Your task to perform on an android device: change text size in settings app Image 0: 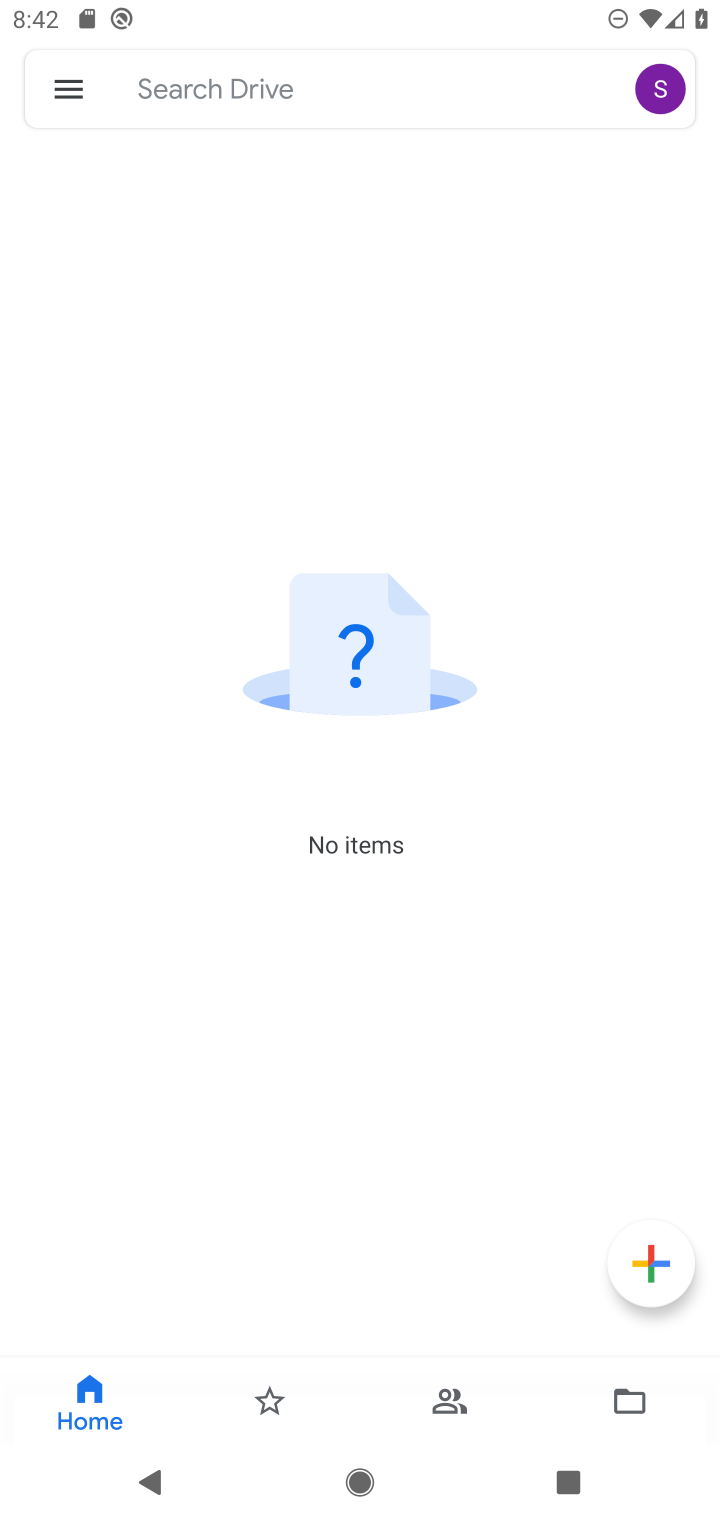
Step 0: press home button
Your task to perform on an android device: change text size in settings app Image 1: 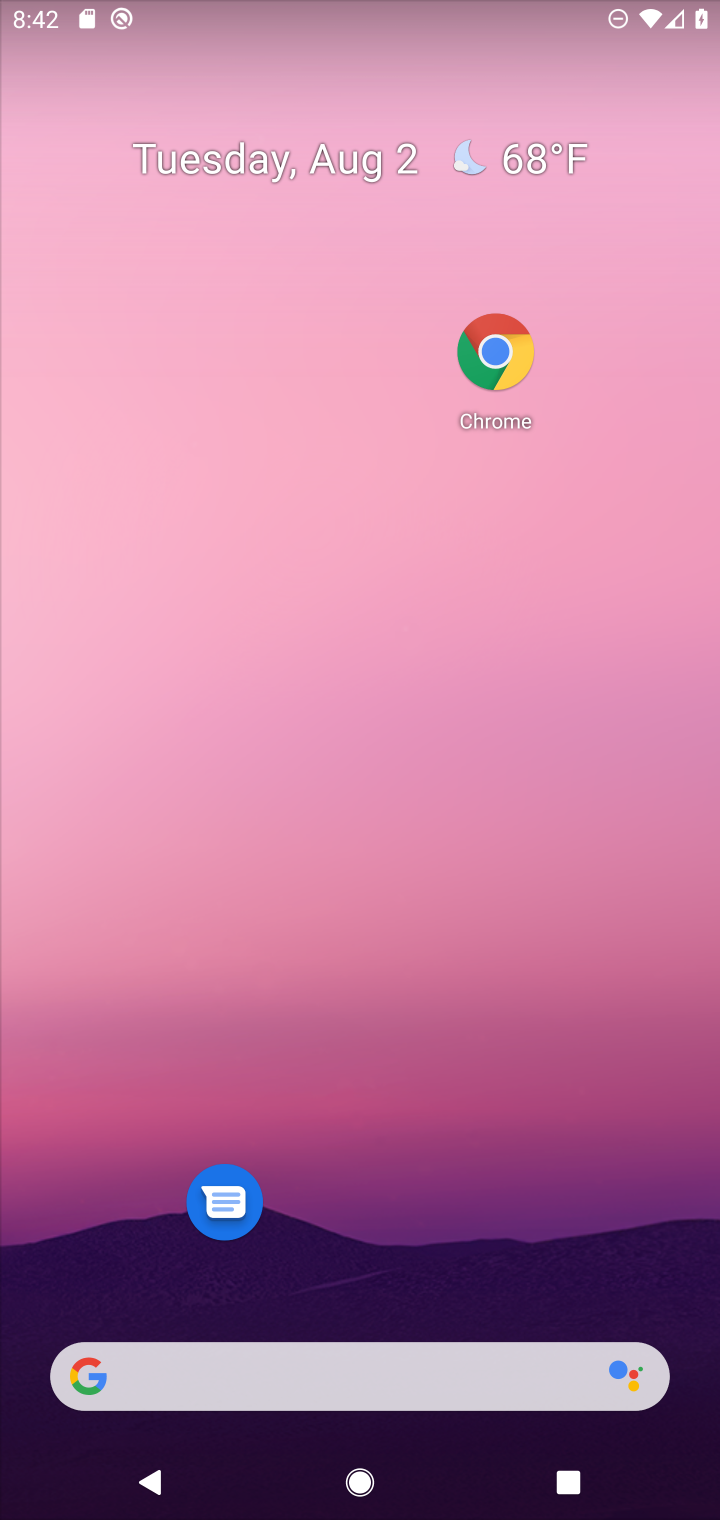
Step 1: drag from (399, 1025) to (325, 17)
Your task to perform on an android device: change text size in settings app Image 2: 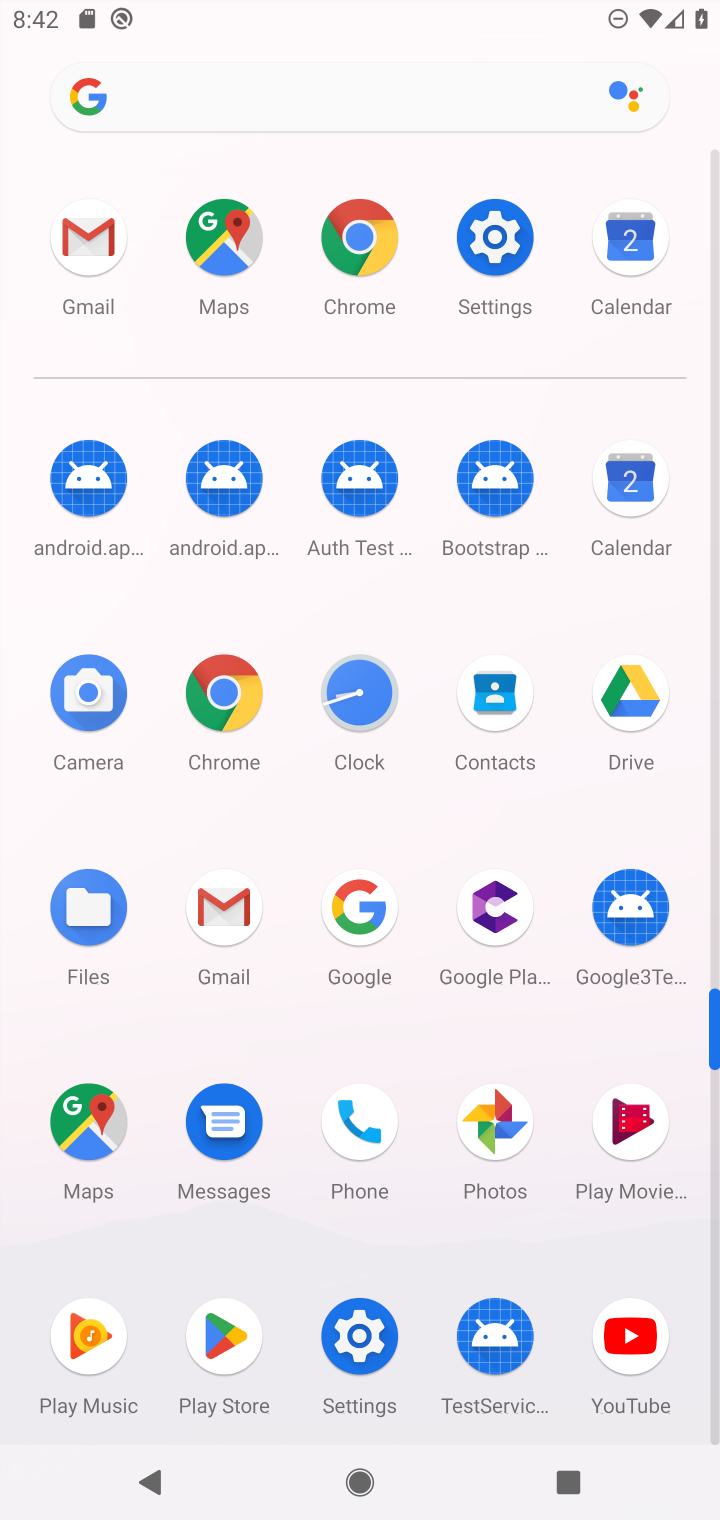
Step 2: click (496, 243)
Your task to perform on an android device: change text size in settings app Image 3: 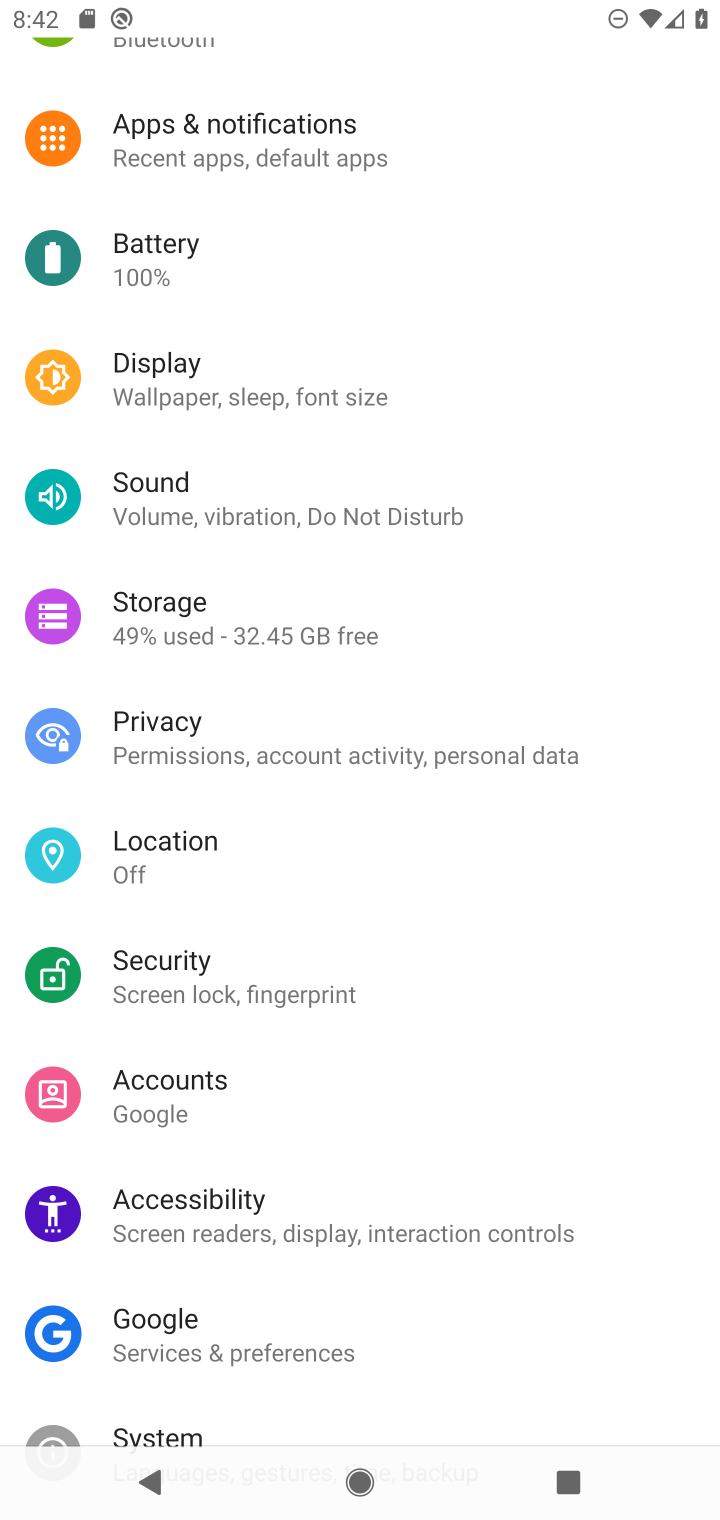
Step 3: click (229, 1221)
Your task to perform on an android device: change text size in settings app Image 4: 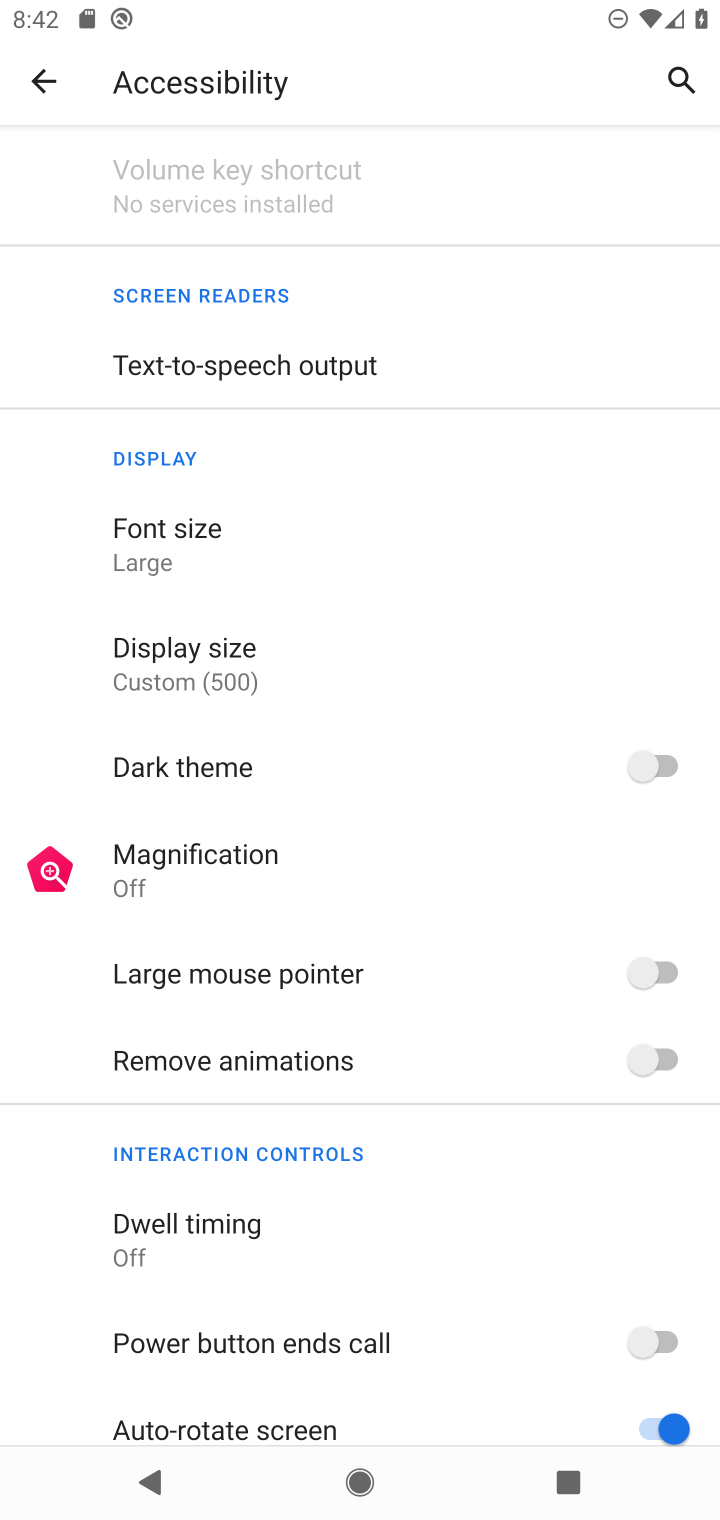
Step 4: click (146, 538)
Your task to perform on an android device: change text size in settings app Image 5: 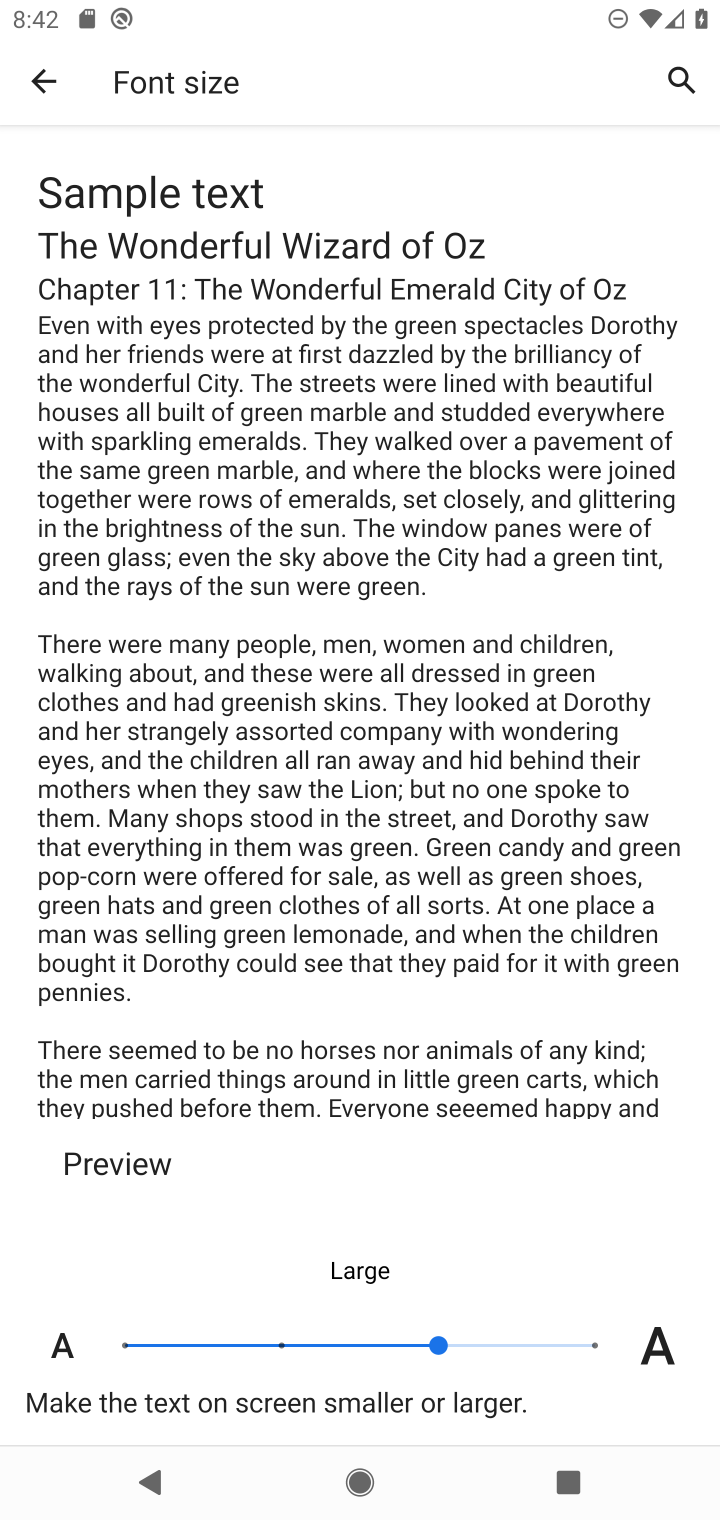
Step 5: task complete